Your task to perform on an android device: Do I have any events tomorrow? Image 0: 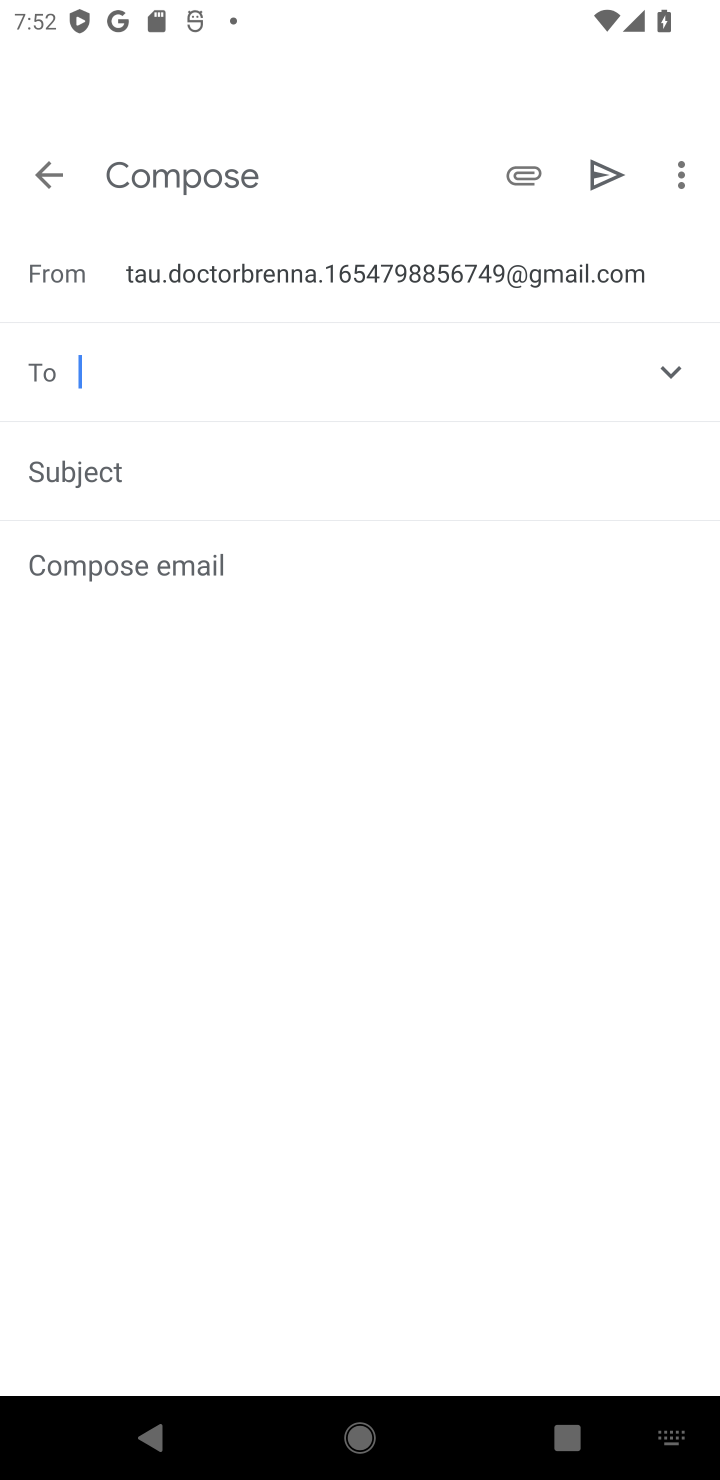
Step 0: click (353, 1444)
Your task to perform on an android device: Do I have any events tomorrow? Image 1: 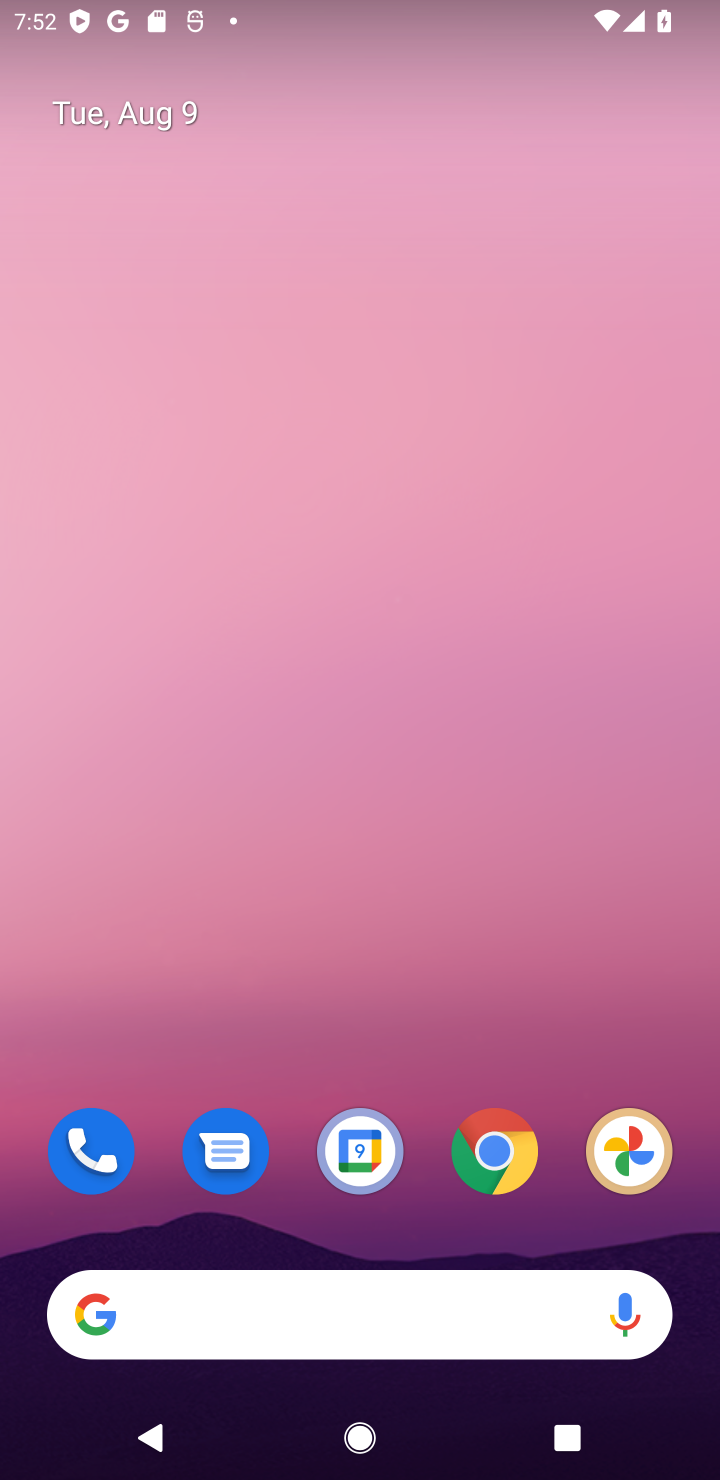
Step 1: click (359, 1151)
Your task to perform on an android device: Do I have any events tomorrow? Image 2: 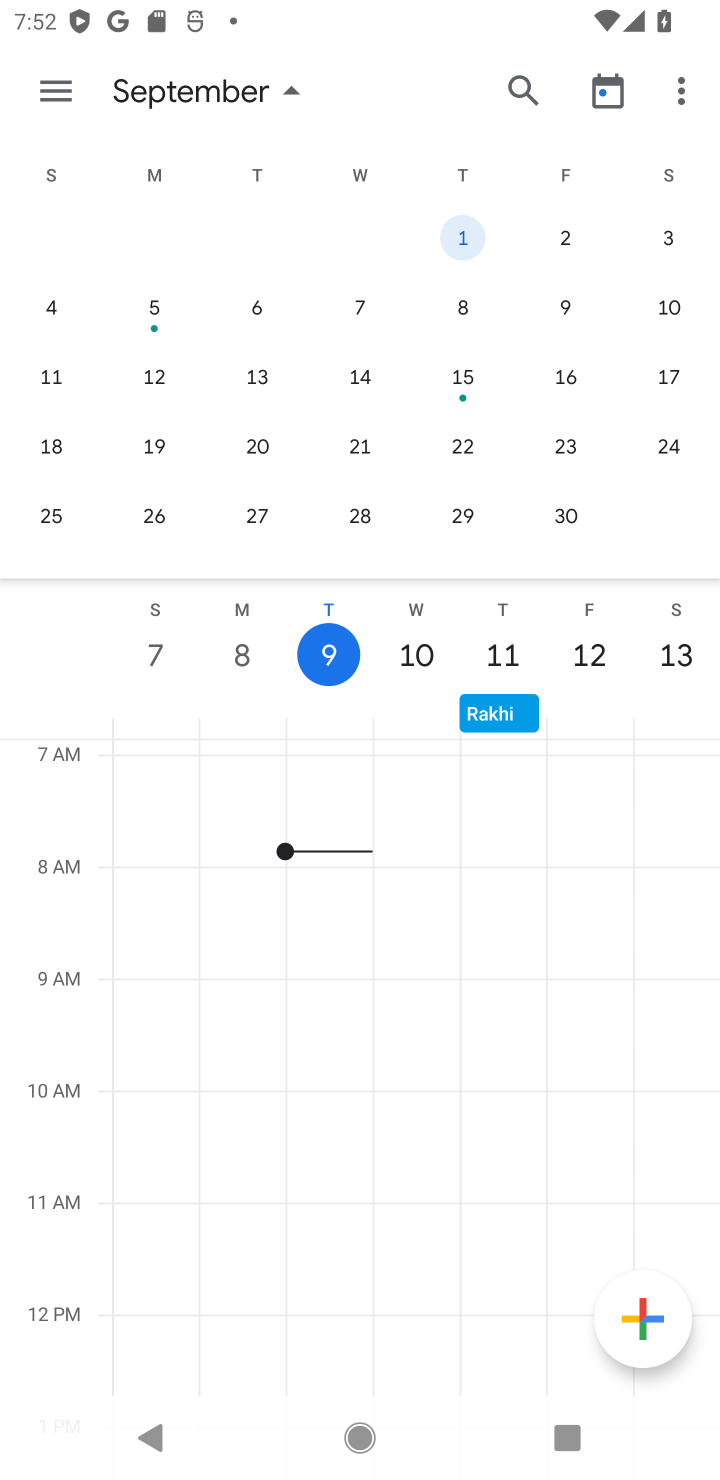
Step 2: click (54, 90)
Your task to perform on an android device: Do I have any events tomorrow? Image 3: 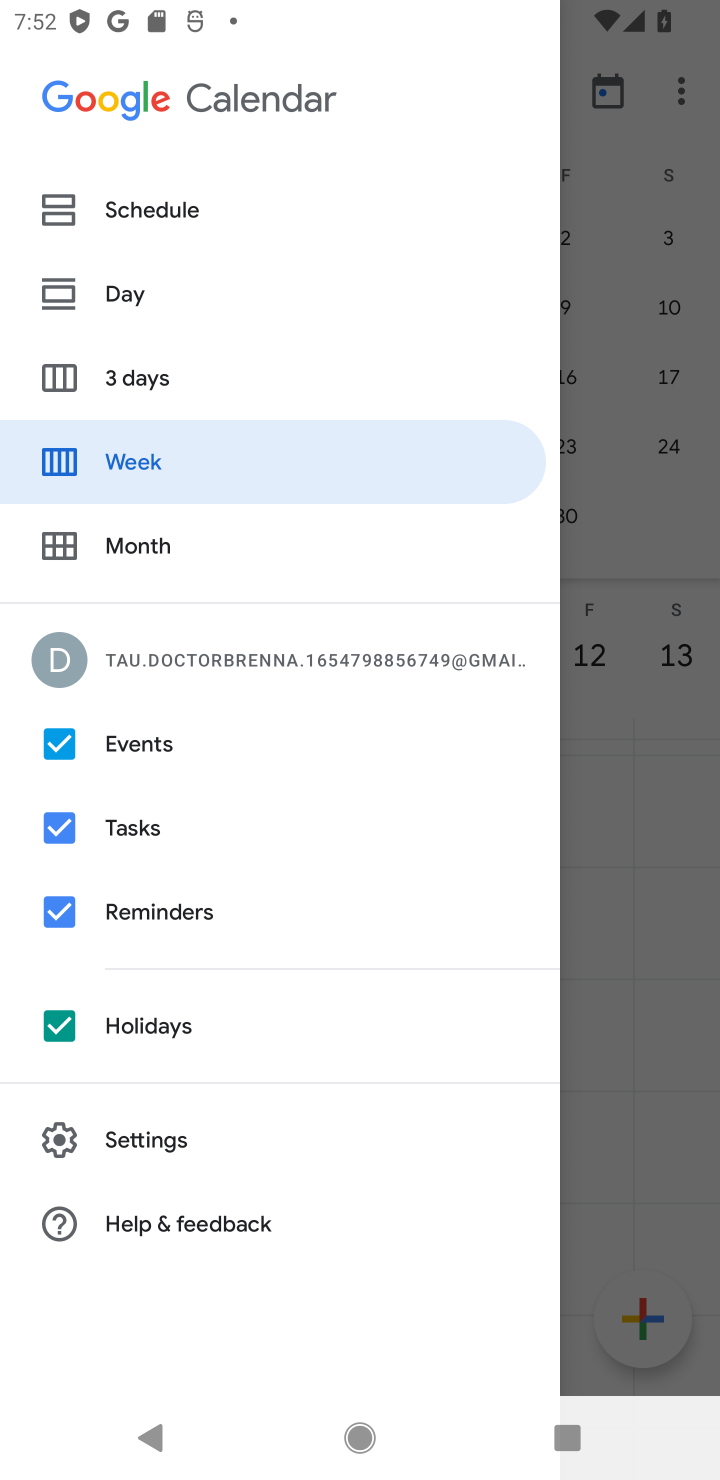
Step 3: click (140, 203)
Your task to perform on an android device: Do I have any events tomorrow? Image 4: 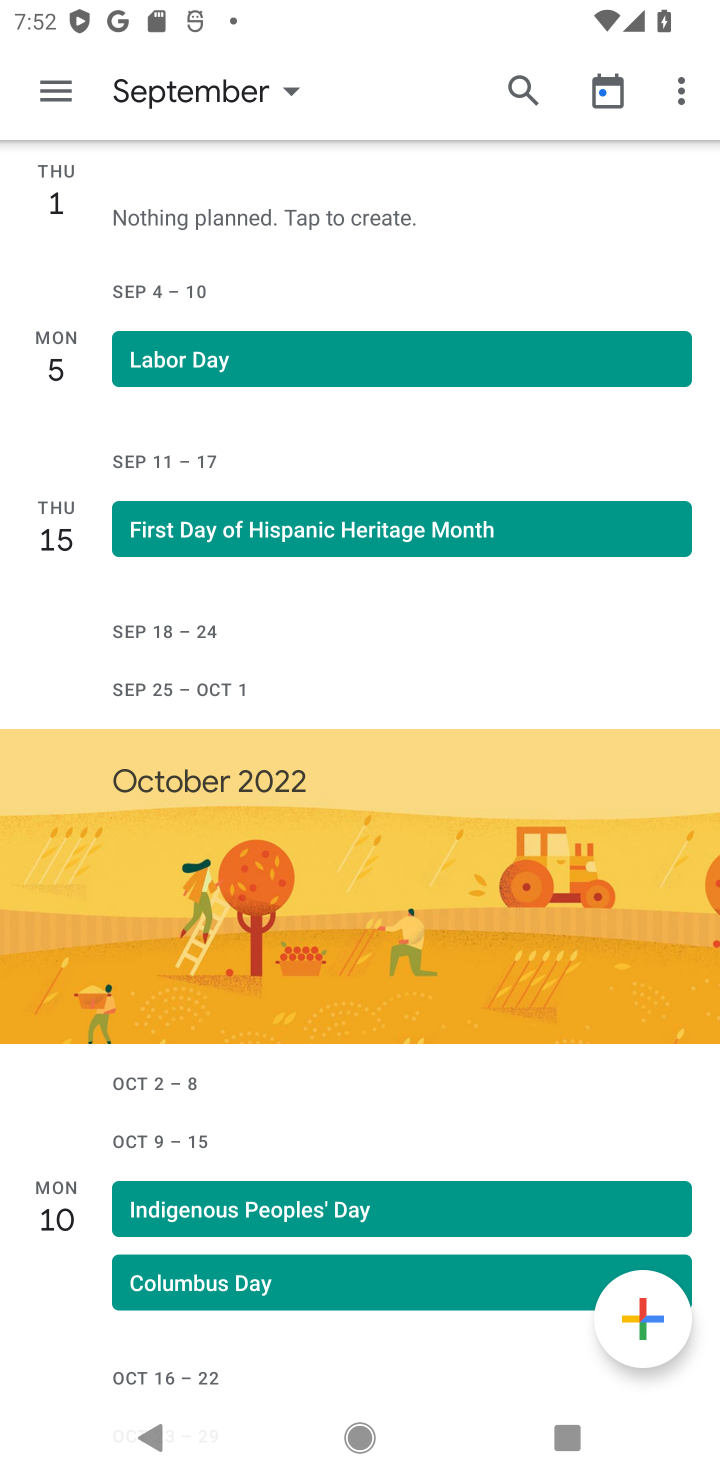
Step 4: click (251, 81)
Your task to perform on an android device: Do I have any events tomorrow? Image 5: 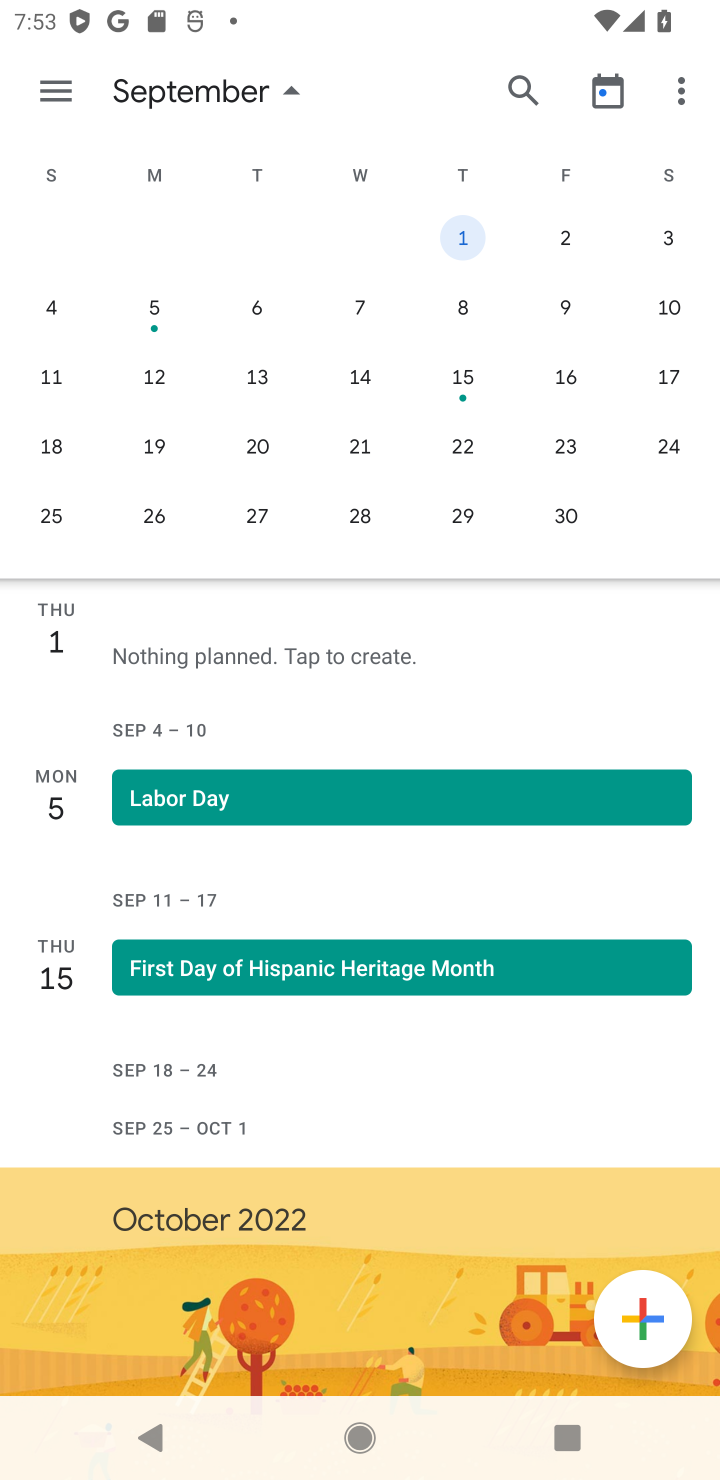
Step 5: task complete